Your task to perform on an android device: turn on the 12-hour format for clock Image 0: 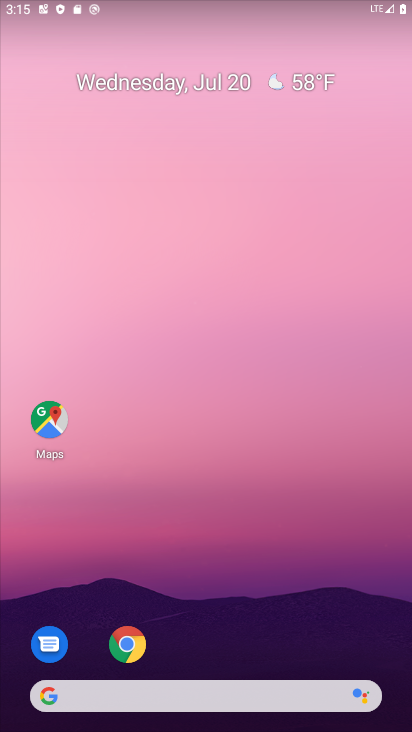
Step 0: drag from (90, 587) to (276, 159)
Your task to perform on an android device: turn on the 12-hour format for clock Image 1: 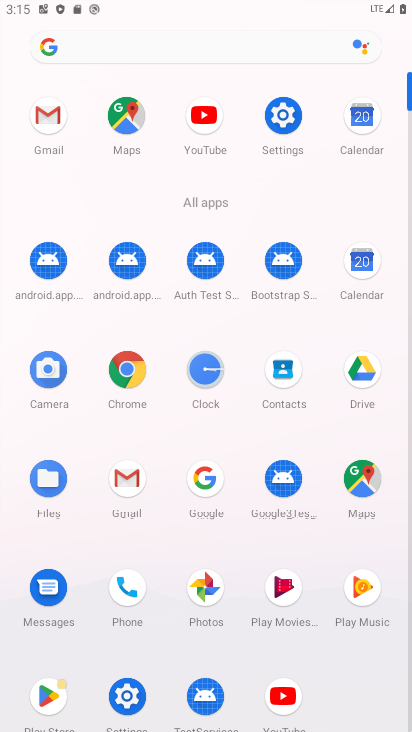
Step 1: click (209, 373)
Your task to perform on an android device: turn on the 12-hour format for clock Image 2: 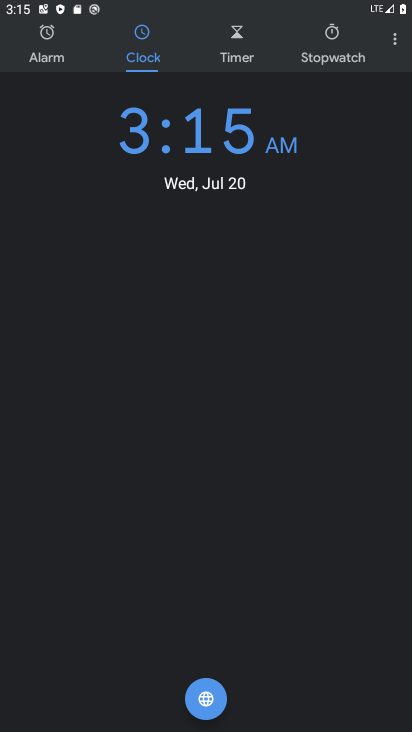
Step 2: click (396, 36)
Your task to perform on an android device: turn on the 12-hour format for clock Image 3: 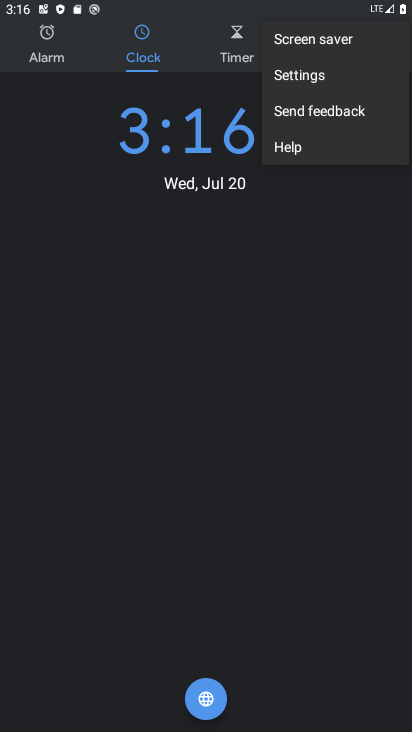
Step 3: click (291, 69)
Your task to perform on an android device: turn on the 12-hour format for clock Image 4: 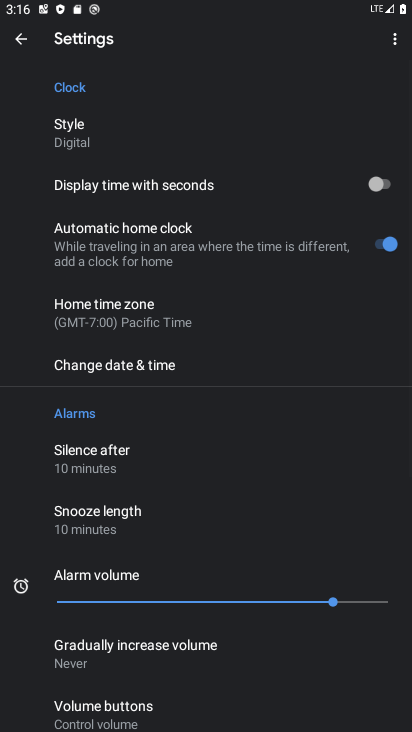
Step 4: click (135, 353)
Your task to perform on an android device: turn on the 12-hour format for clock Image 5: 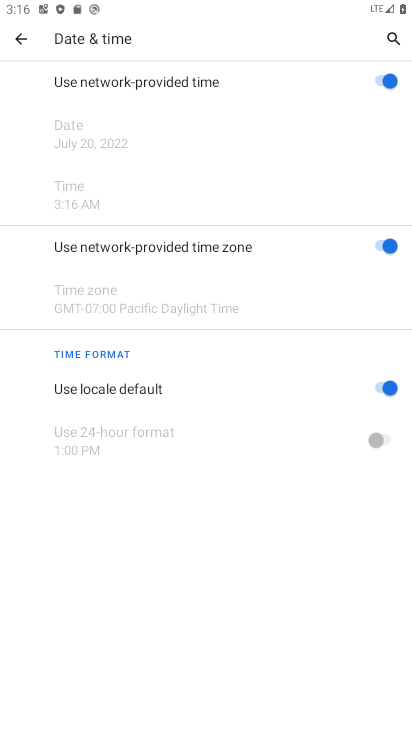
Step 5: click (400, 377)
Your task to perform on an android device: turn on the 12-hour format for clock Image 6: 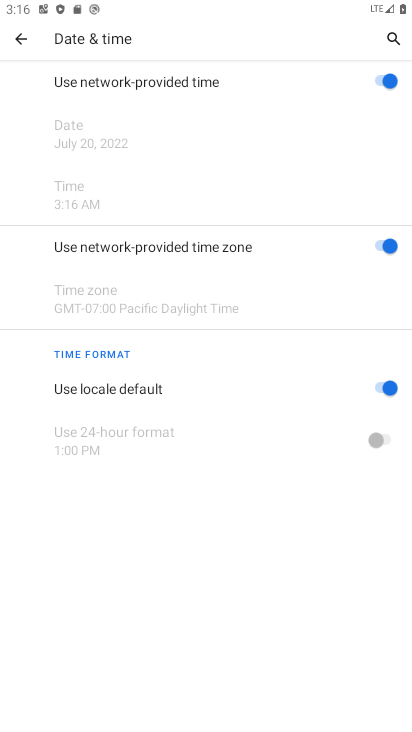
Step 6: click (384, 393)
Your task to perform on an android device: turn on the 12-hour format for clock Image 7: 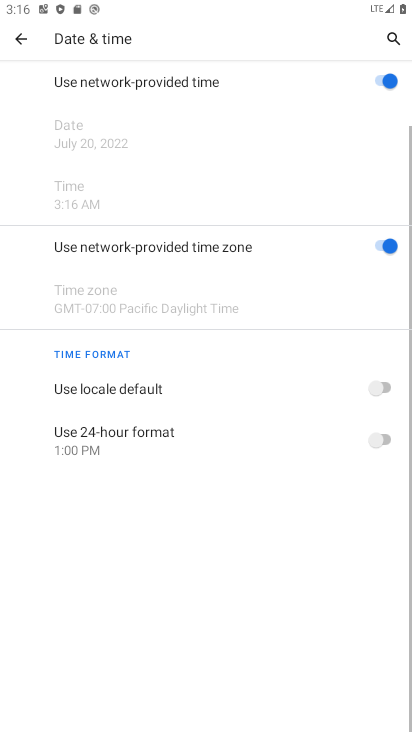
Step 7: click (378, 449)
Your task to perform on an android device: turn on the 12-hour format for clock Image 8: 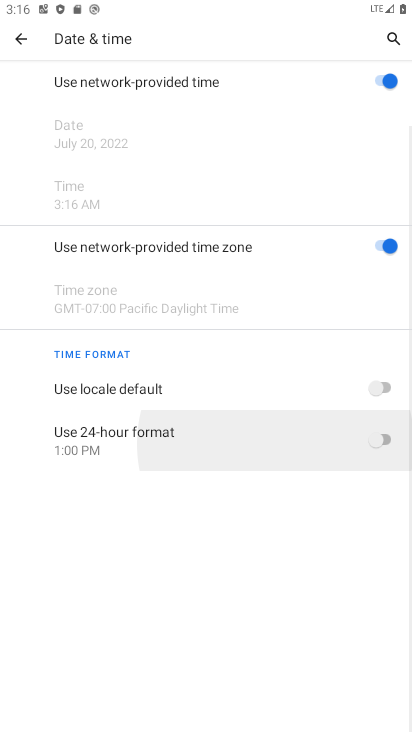
Step 8: click (379, 444)
Your task to perform on an android device: turn on the 12-hour format for clock Image 9: 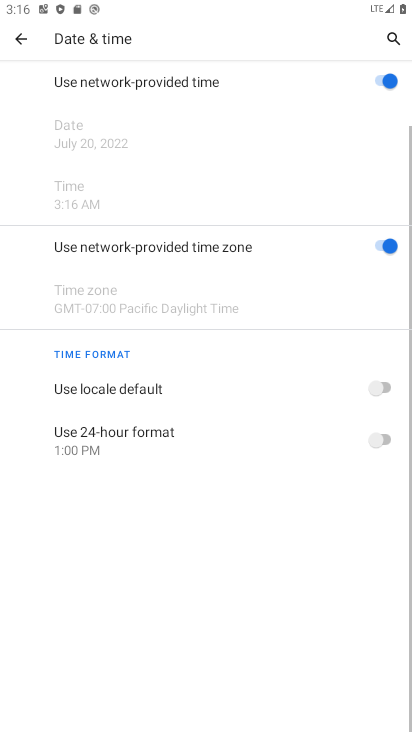
Step 9: click (386, 439)
Your task to perform on an android device: turn on the 12-hour format for clock Image 10: 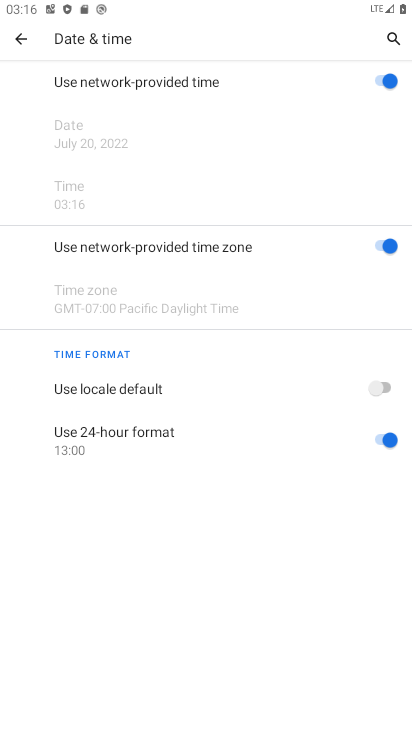
Step 10: task complete